Your task to perform on an android device: Open settings on Google Maps Image 0: 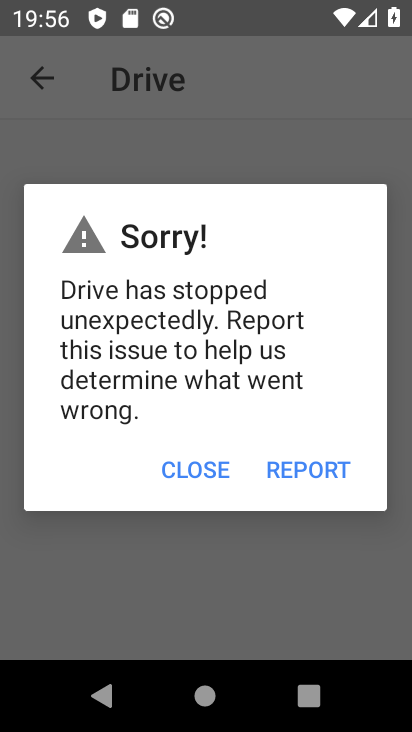
Step 0: press home button
Your task to perform on an android device: Open settings on Google Maps Image 1: 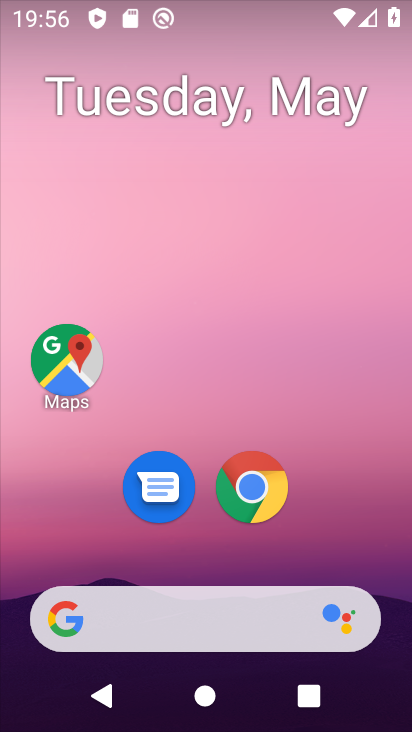
Step 1: click (45, 363)
Your task to perform on an android device: Open settings on Google Maps Image 2: 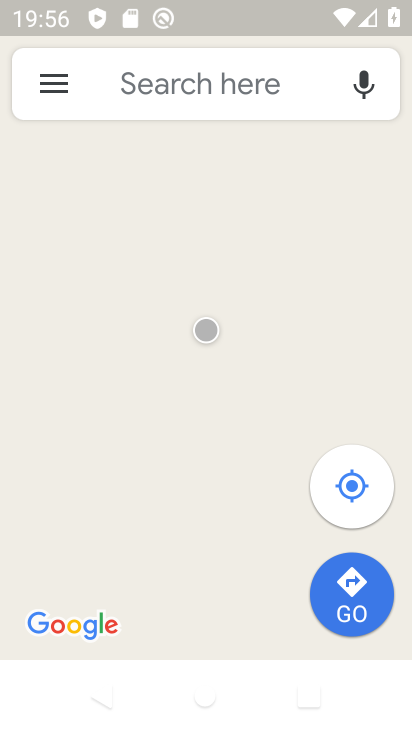
Step 2: click (43, 99)
Your task to perform on an android device: Open settings on Google Maps Image 3: 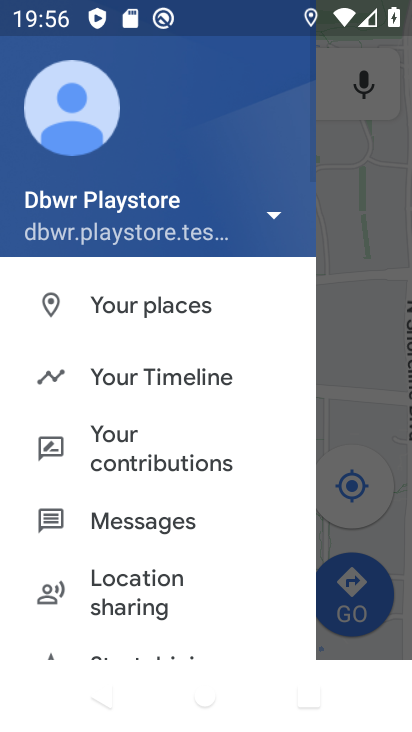
Step 3: drag from (123, 623) to (170, 321)
Your task to perform on an android device: Open settings on Google Maps Image 4: 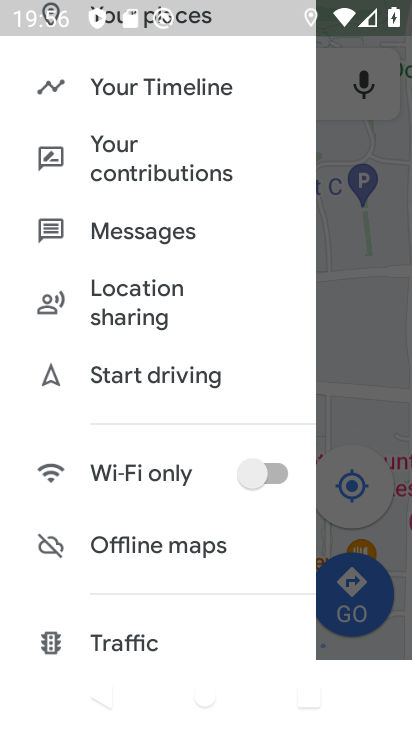
Step 4: drag from (158, 637) to (178, 269)
Your task to perform on an android device: Open settings on Google Maps Image 5: 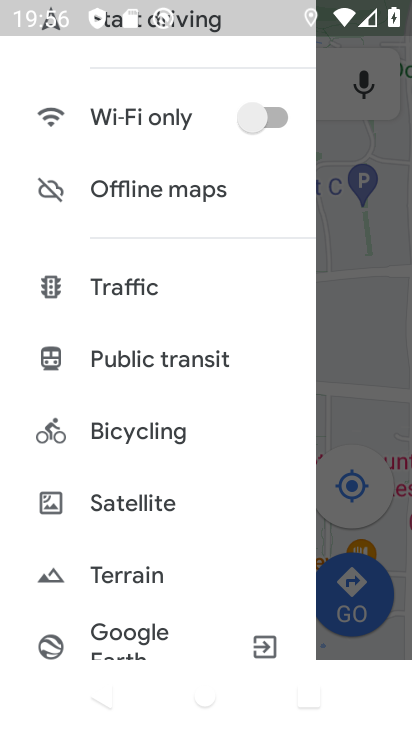
Step 5: drag from (146, 598) to (162, 314)
Your task to perform on an android device: Open settings on Google Maps Image 6: 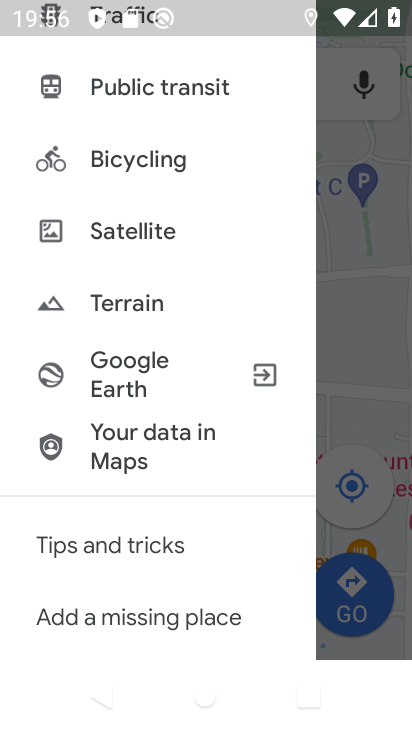
Step 6: drag from (162, 615) to (218, 293)
Your task to perform on an android device: Open settings on Google Maps Image 7: 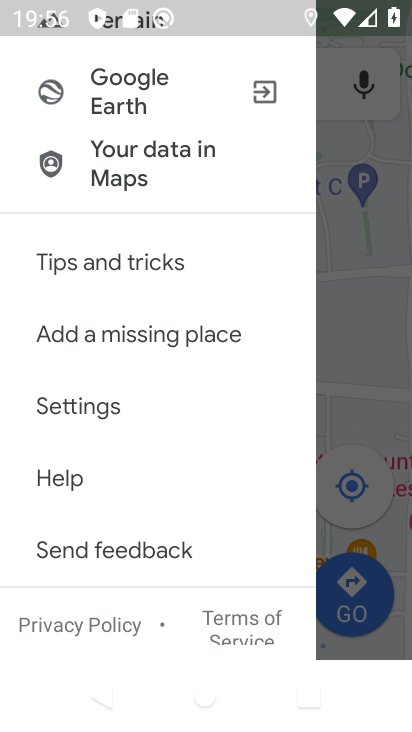
Step 7: click (182, 407)
Your task to perform on an android device: Open settings on Google Maps Image 8: 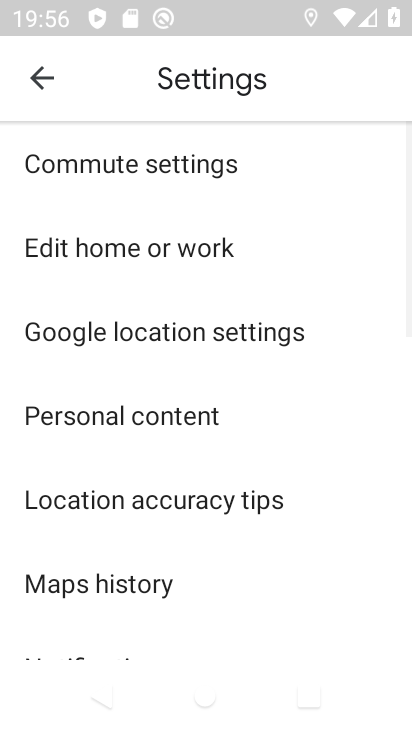
Step 8: task complete